Your task to perform on an android device: Open Chrome and go to settings Image 0: 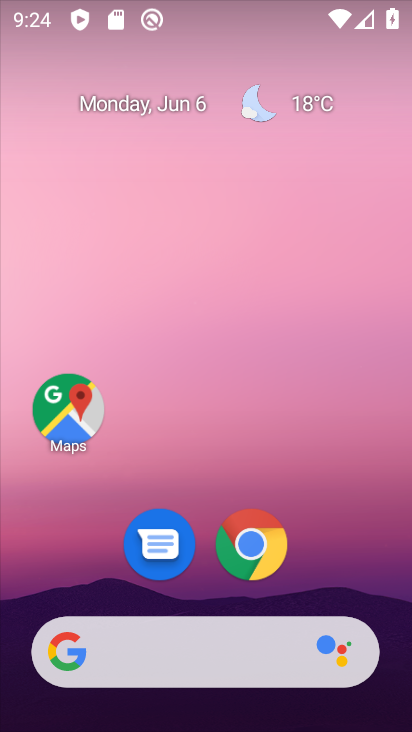
Step 0: drag from (272, 547) to (262, 275)
Your task to perform on an android device: Open Chrome and go to settings Image 1: 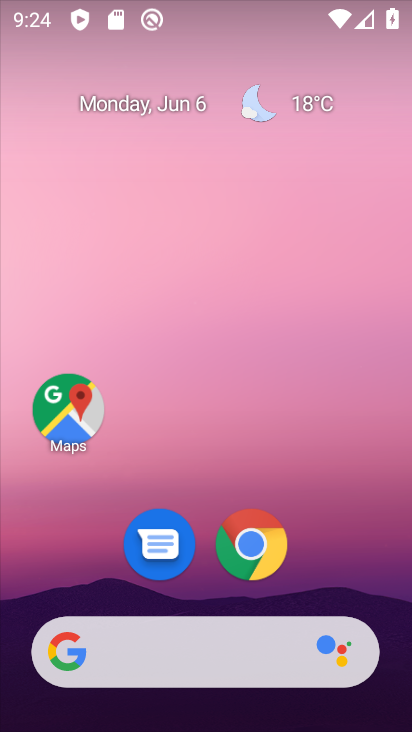
Step 1: drag from (250, 679) to (224, 178)
Your task to perform on an android device: Open Chrome and go to settings Image 2: 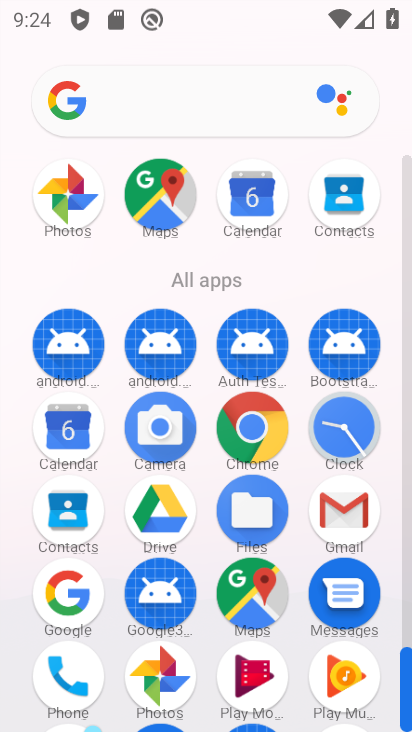
Step 2: click (273, 432)
Your task to perform on an android device: Open Chrome and go to settings Image 3: 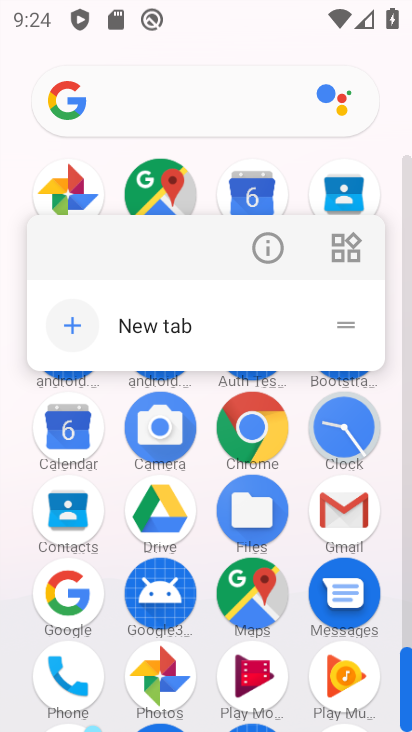
Step 3: click (252, 424)
Your task to perform on an android device: Open Chrome and go to settings Image 4: 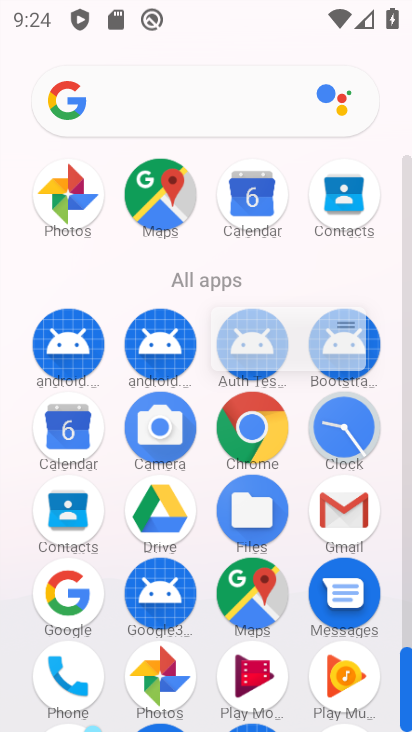
Step 4: click (261, 421)
Your task to perform on an android device: Open Chrome and go to settings Image 5: 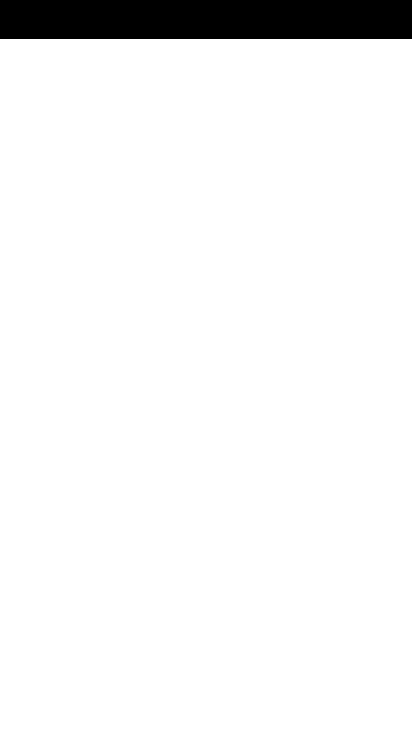
Step 5: click (255, 429)
Your task to perform on an android device: Open Chrome and go to settings Image 6: 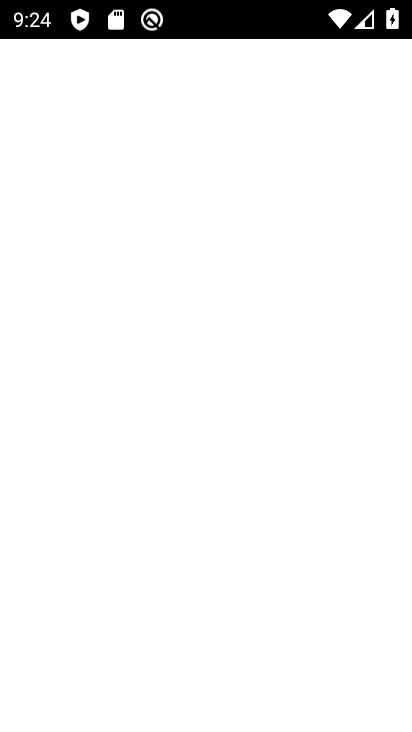
Step 6: click (264, 435)
Your task to perform on an android device: Open Chrome and go to settings Image 7: 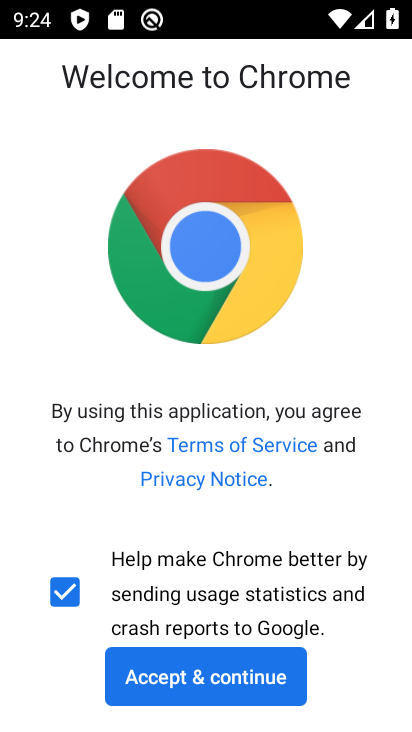
Step 7: click (202, 676)
Your task to perform on an android device: Open Chrome and go to settings Image 8: 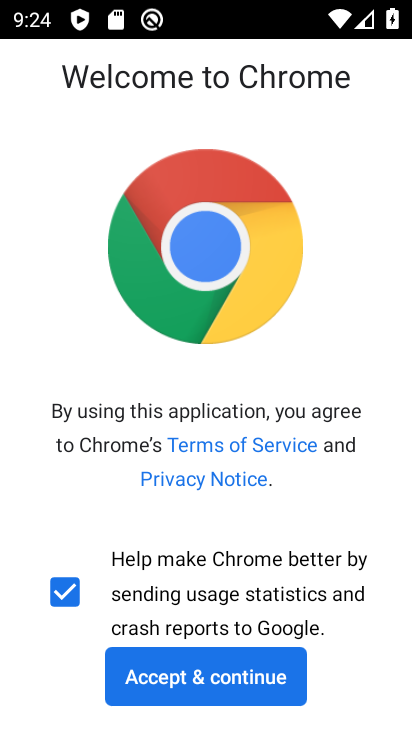
Step 8: click (215, 670)
Your task to perform on an android device: Open Chrome and go to settings Image 9: 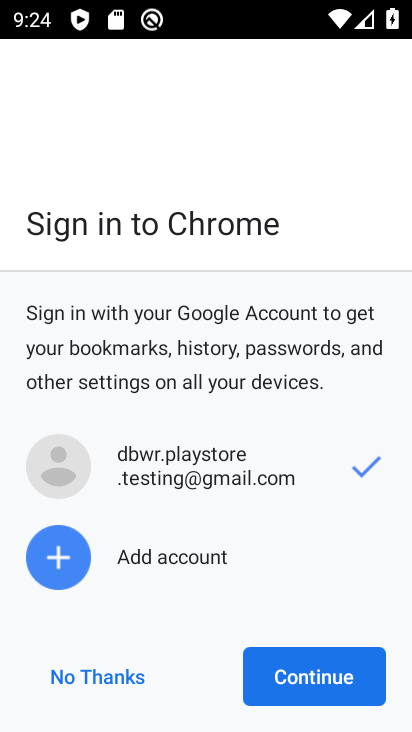
Step 9: click (216, 671)
Your task to perform on an android device: Open Chrome and go to settings Image 10: 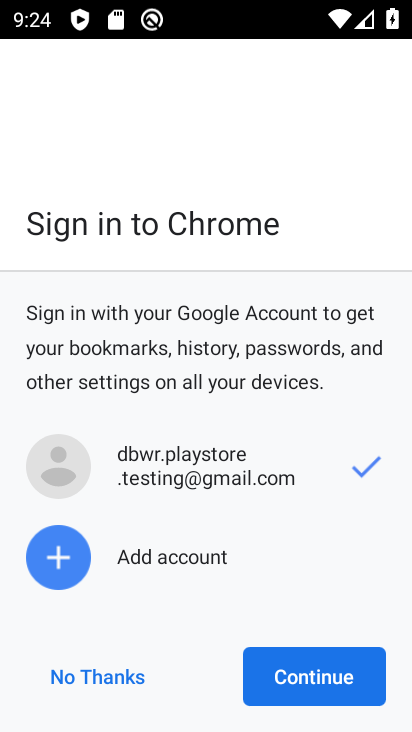
Step 10: click (213, 677)
Your task to perform on an android device: Open Chrome and go to settings Image 11: 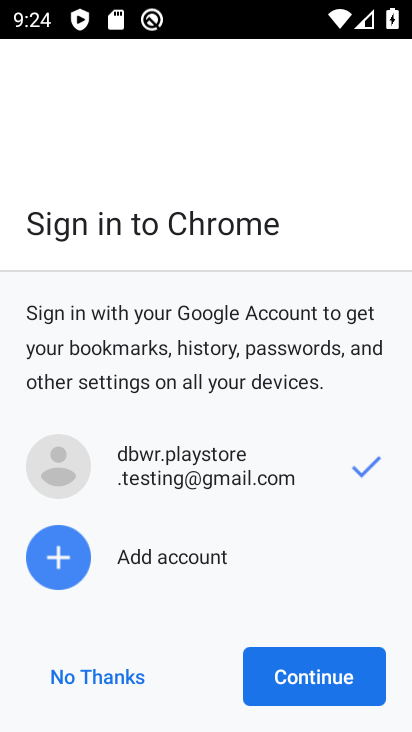
Step 11: click (212, 678)
Your task to perform on an android device: Open Chrome and go to settings Image 12: 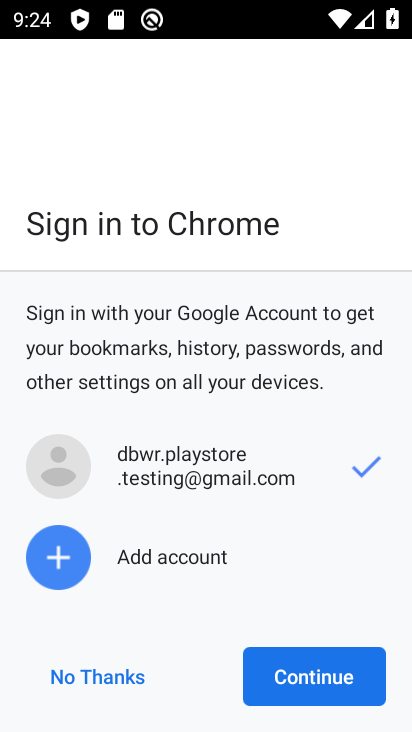
Step 12: click (212, 678)
Your task to perform on an android device: Open Chrome and go to settings Image 13: 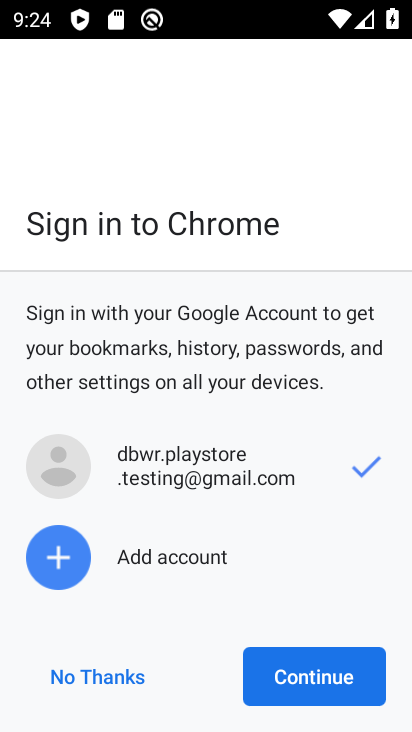
Step 13: click (310, 689)
Your task to perform on an android device: Open Chrome and go to settings Image 14: 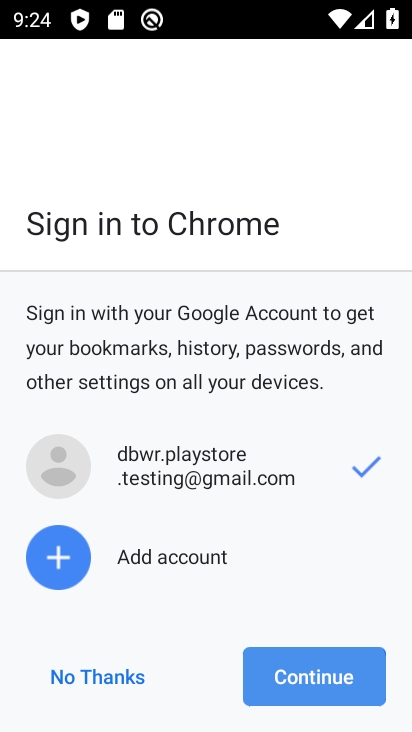
Step 14: click (311, 687)
Your task to perform on an android device: Open Chrome and go to settings Image 15: 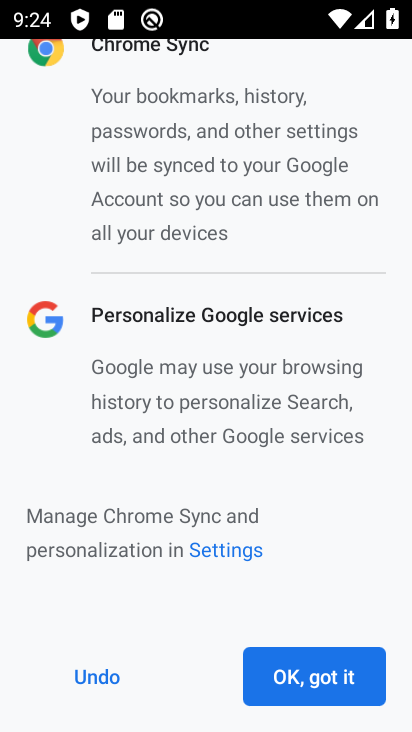
Step 15: click (316, 685)
Your task to perform on an android device: Open Chrome and go to settings Image 16: 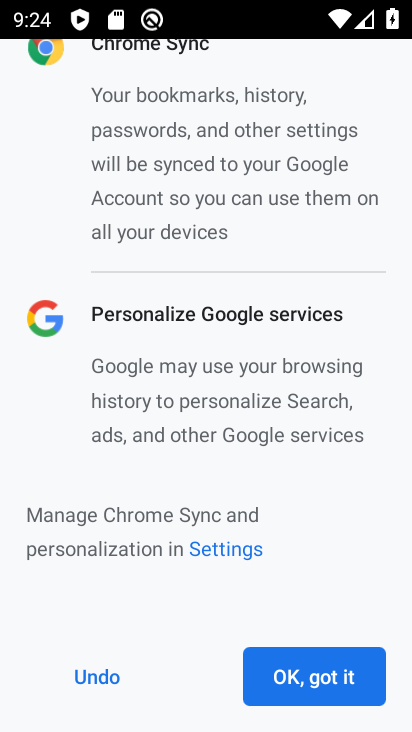
Step 16: click (321, 682)
Your task to perform on an android device: Open Chrome and go to settings Image 17: 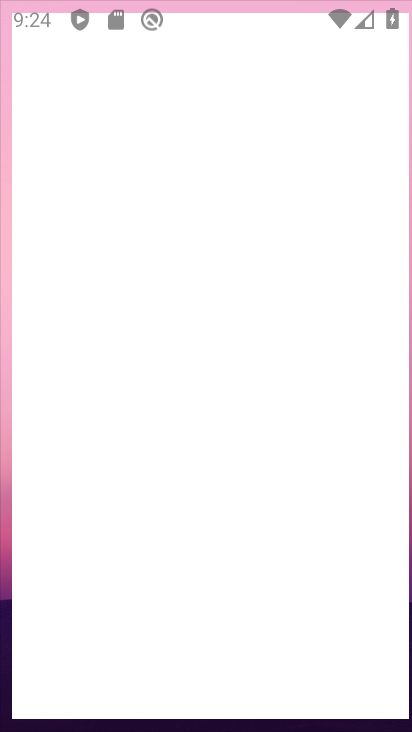
Step 17: click (327, 679)
Your task to perform on an android device: Open Chrome and go to settings Image 18: 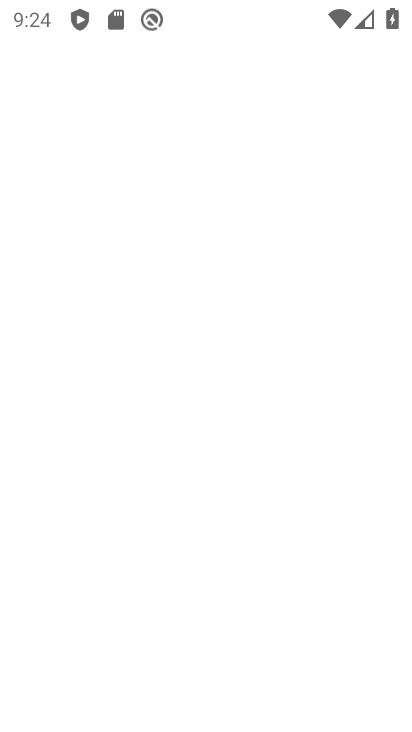
Step 18: click (332, 684)
Your task to perform on an android device: Open Chrome and go to settings Image 19: 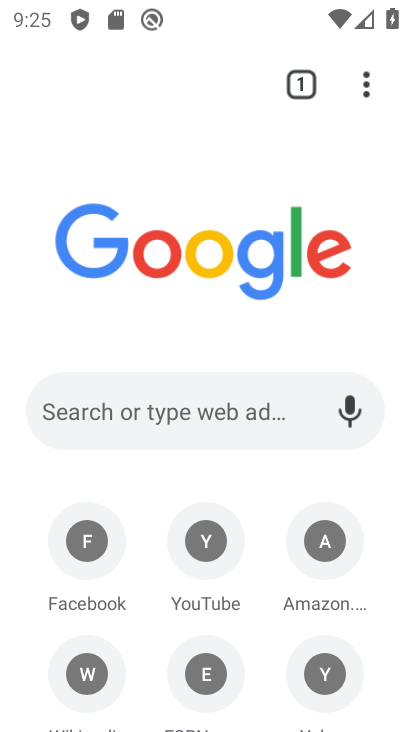
Step 19: drag from (366, 92) to (81, 593)
Your task to perform on an android device: Open Chrome and go to settings Image 20: 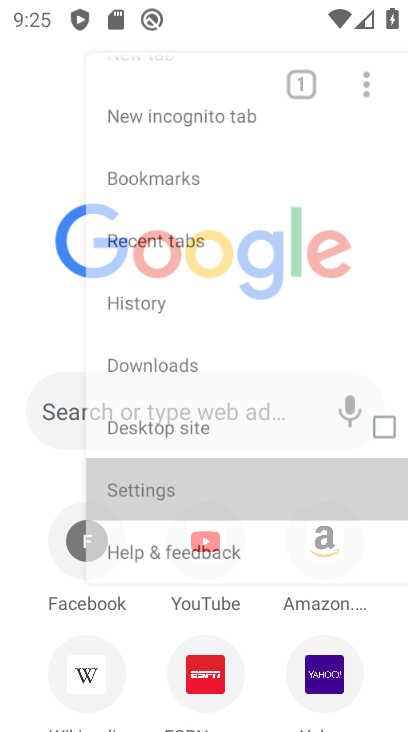
Step 20: click (81, 591)
Your task to perform on an android device: Open Chrome and go to settings Image 21: 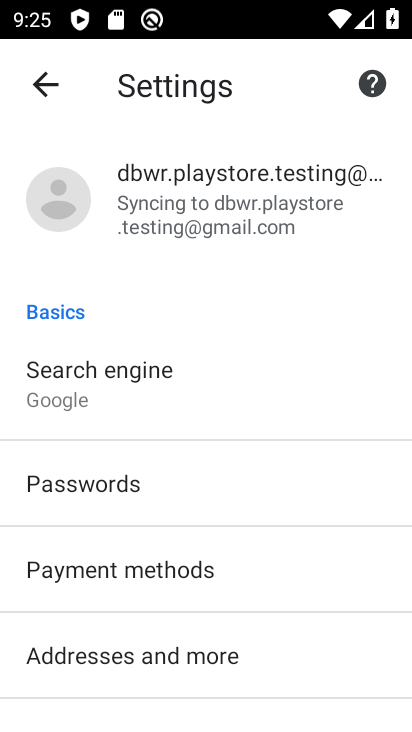
Step 21: task complete